Your task to perform on an android device: Go to calendar. Show me events next week Image 0: 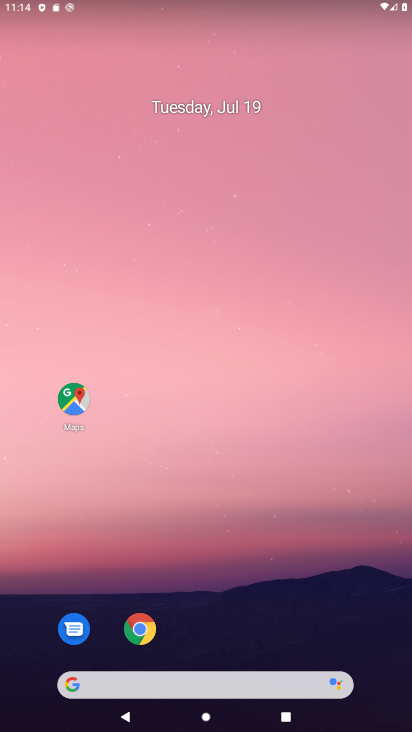
Step 0: drag from (278, 575) to (228, 26)
Your task to perform on an android device: Go to calendar. Show me events next week Image 1: 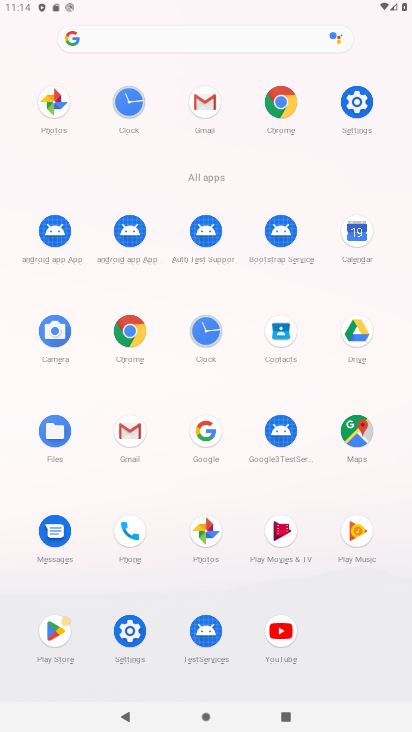
Step 1: click (355, 232)
Your task to perform on an android device: Go to calendar. Show me events next week Image 2: 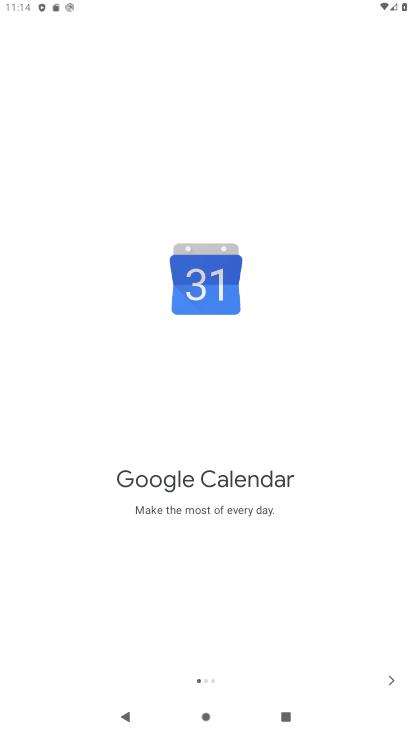
Step 2: click (398, 679)
Your task to perform on an android device: Go to calendar. Show me events next week Image 3: 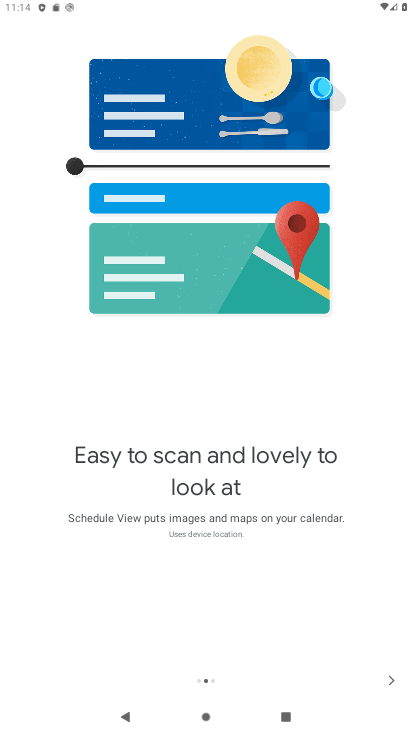
Step 3: click (396, 678)
Your task to perform on an android device: Go to calendar. Show me events next week Image 4: 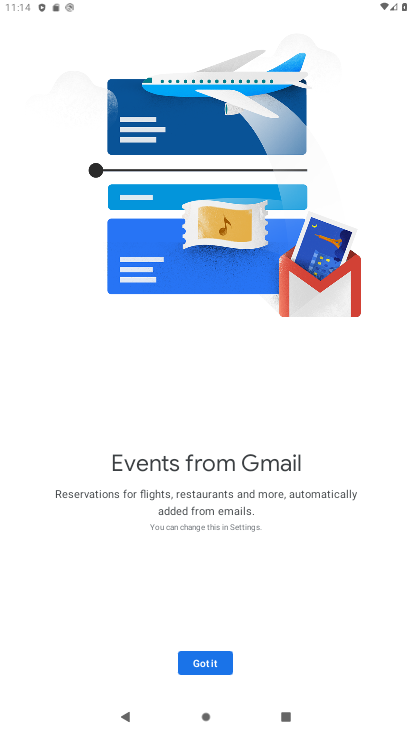
Step 4: click (197, 657)
Your task to perform on an android device: Go to calendar. Show me events next week Image 5: 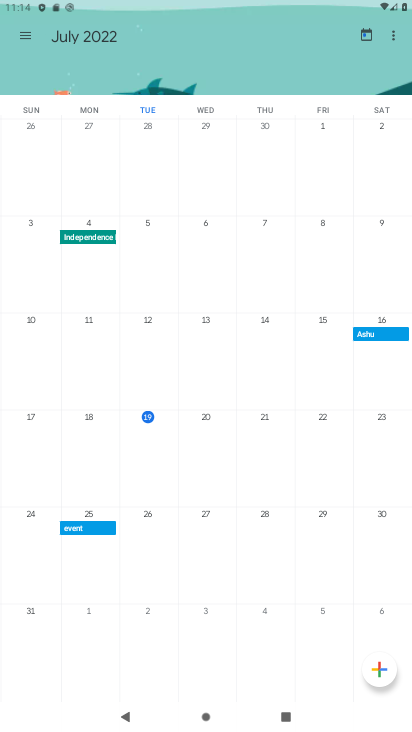
Step 5: click (150, 507)
Your task to perform on an android device: Go to calendar. Show me events next week Image 6: 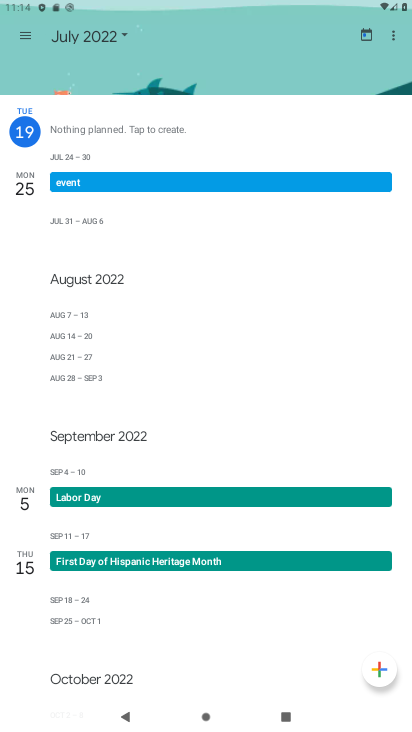
Step 6: click (26, 37)
Your task to perform on an android device: Go to calendar. Show me events next week Image 7: 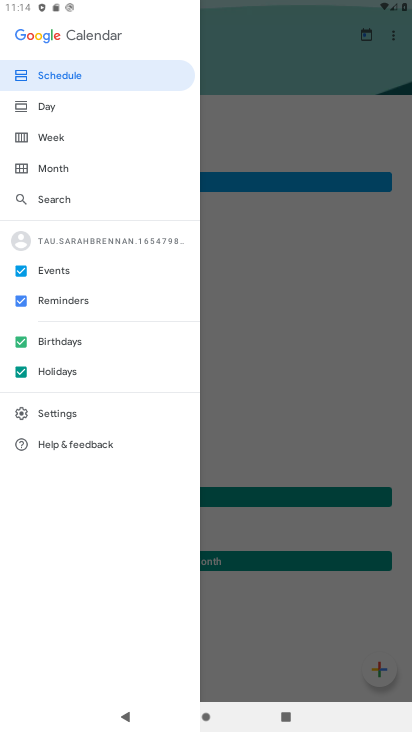
Step 7: click (79, 140)
Your task to perform on an android device: Go to calendar. Show me events next week Image 8: 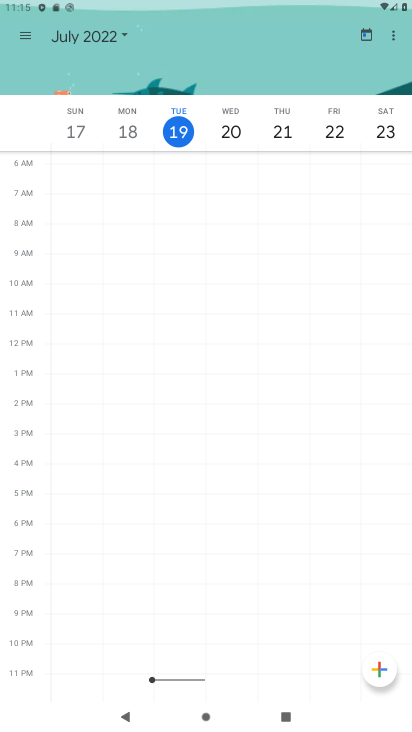
Step 8: task complete